Your task to perform on an android device: toggle notifications settings in the gmail app Image 0: 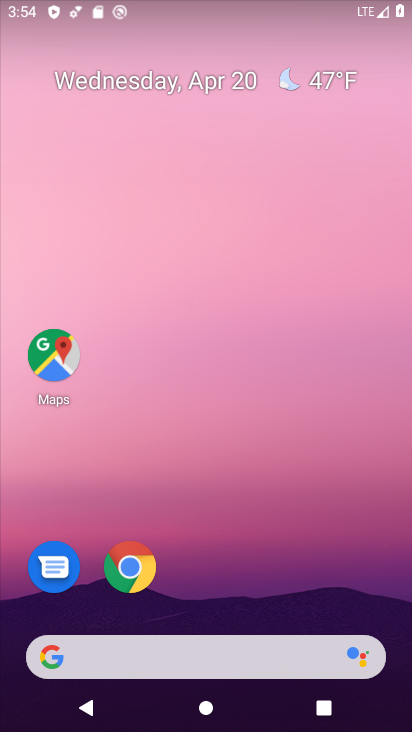
Step 0: drag from (263, 546) to (172, 45)
Your task to perform on an android device: toggle notifications settings in the gmail app Image 1: 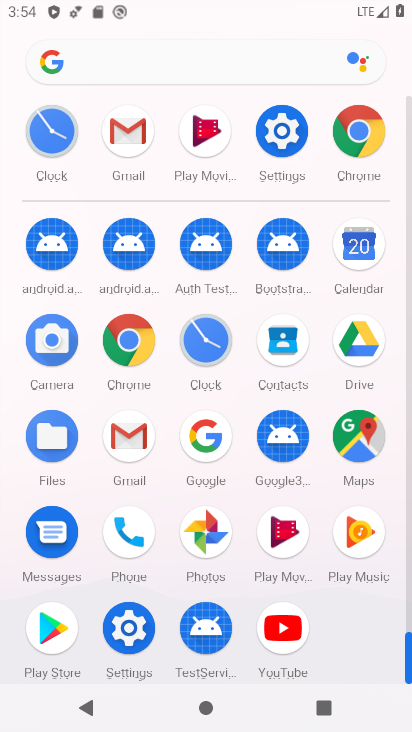
Step 1: click (132, 436)
Your task to perform on an android device: toggle notifications settings in the gmail app Image 2: 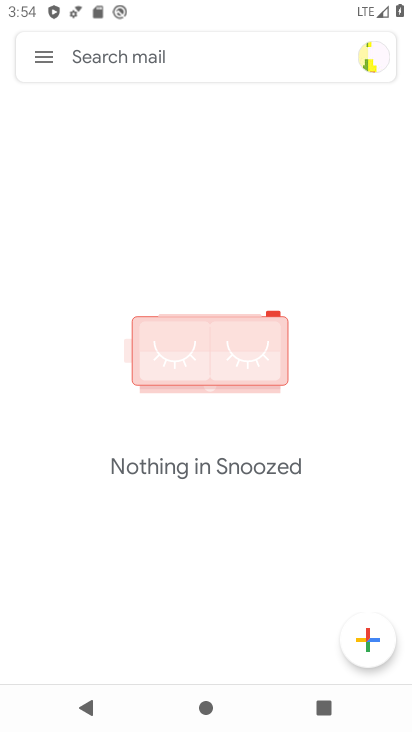
Step 2: click (24, 62)
Your task to perform on an android device: toggle notifications settings in the gmail app Image 3: 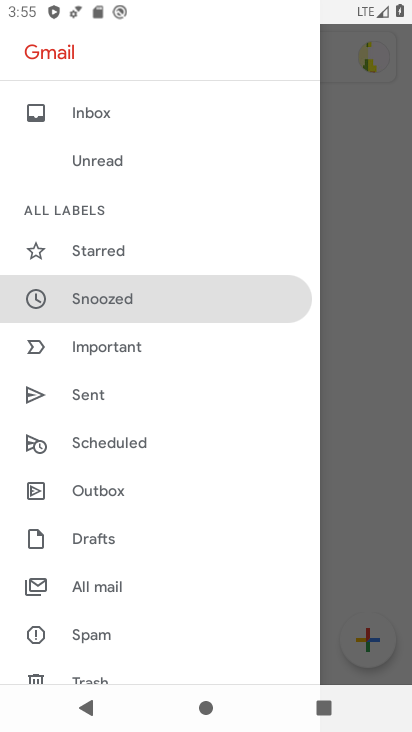
Step 3: drag from (145, 518) to (133, 97)
Your task to perform on an android device: toggle notifications settings in the gmail app Image 4: 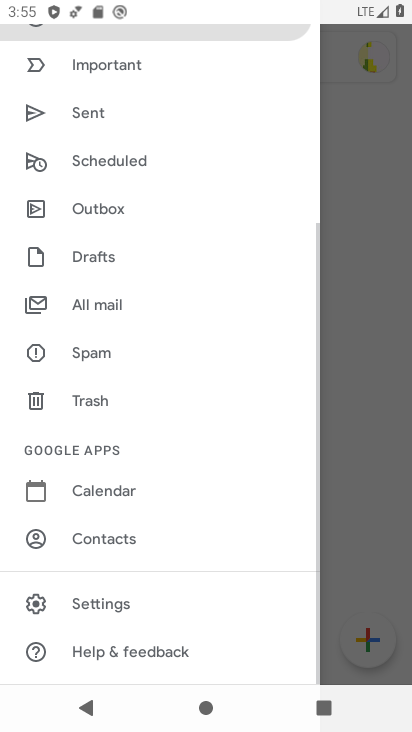
Step 4: click (124, 600)
Your task to perform on an android device: toggle notifications settings in the gmail app Image 5: 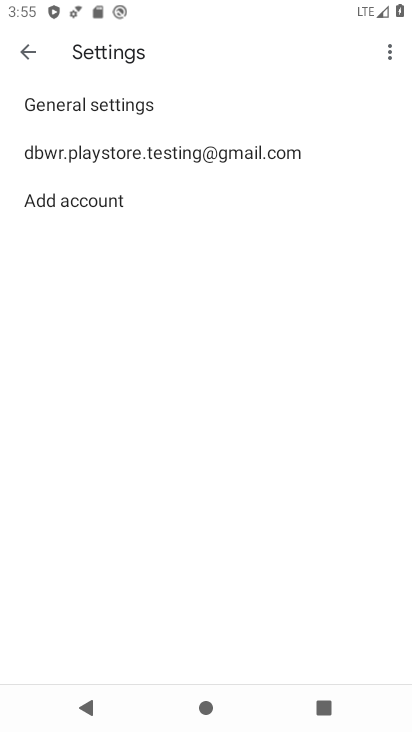
Step 5: click (110, 156)
Your task to perform on an android device: toggle notifications settings in the gmail app Image 6: 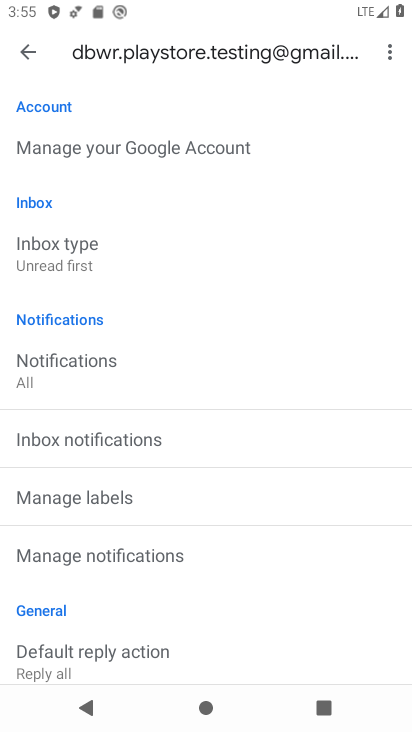
Step 6: click (164, 546)
Your task to perform on an android device: toggle notifications settings in the gmail app Image 7: 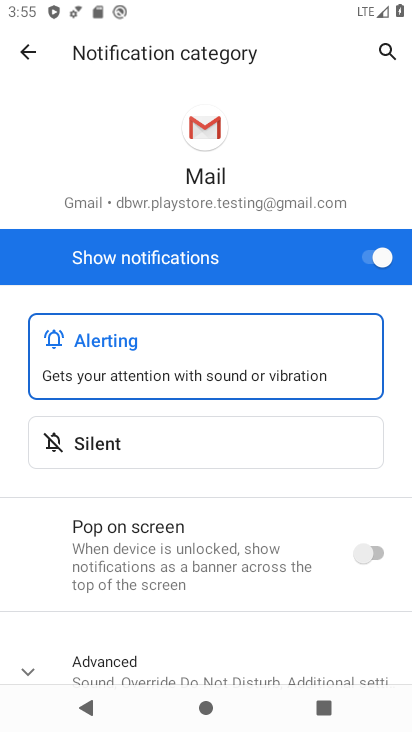
Step 7: click (366, 252)
Your task to perform on an android device: toggle notifications settings in the gmail app Image 8: 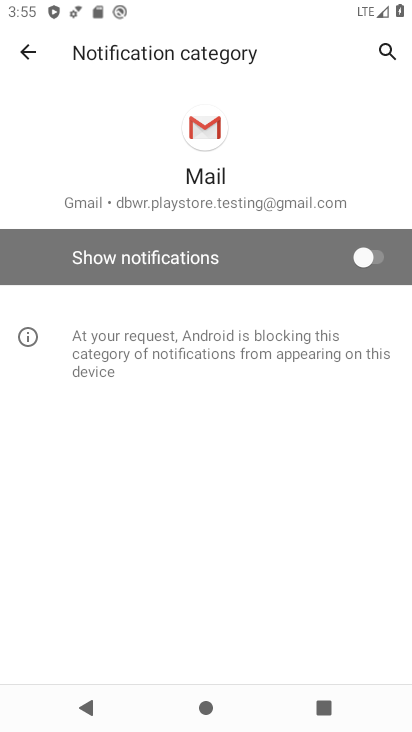
Step 8: task complete